Your task to perform on an android device: Find coffee shops on Maps Image 0: 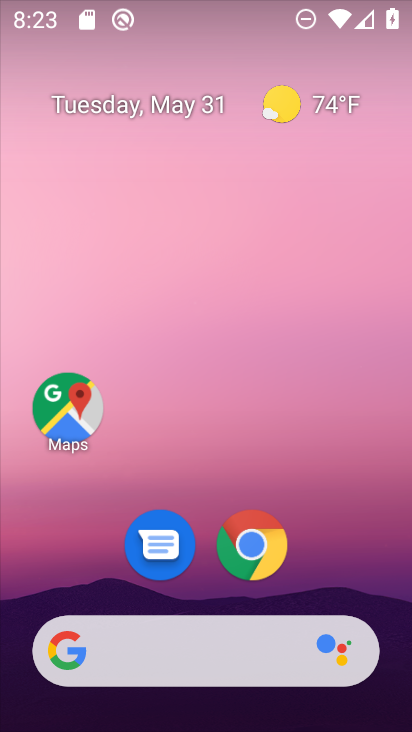
Step 0: drag from (321, 569) to (211, 0)
Your task to perform on an android device: Find coffee shops on Maps Image 1: 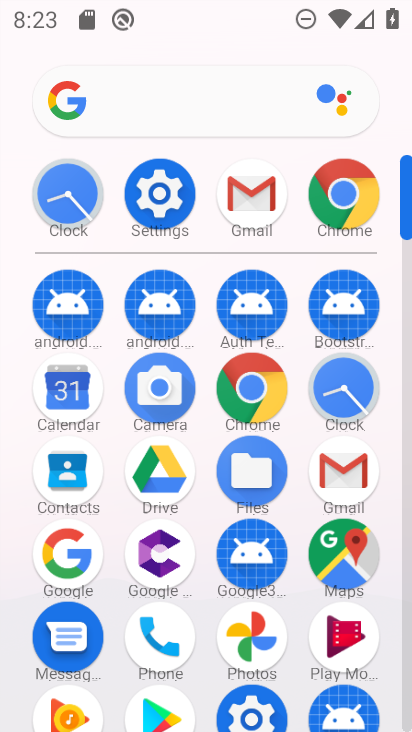
Step 1: drag from (7, 609) to (14, 295)
Your task to perform on an android device: Find coffee shops on Maps Image 2: 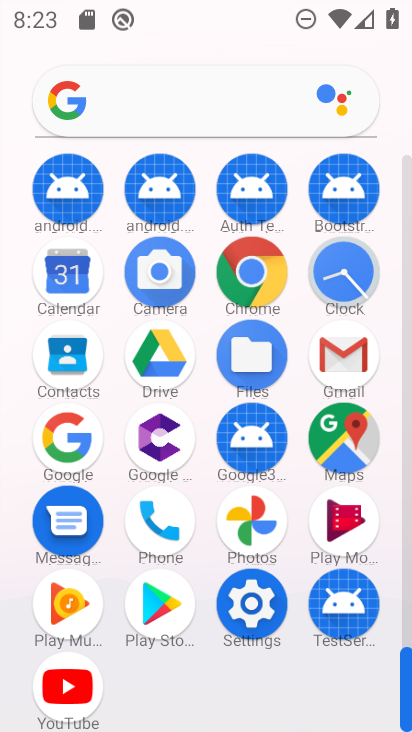
Step 2: click (336, 436)
Your task to perform on an android device: Find coffee shops on Maps Image 3: 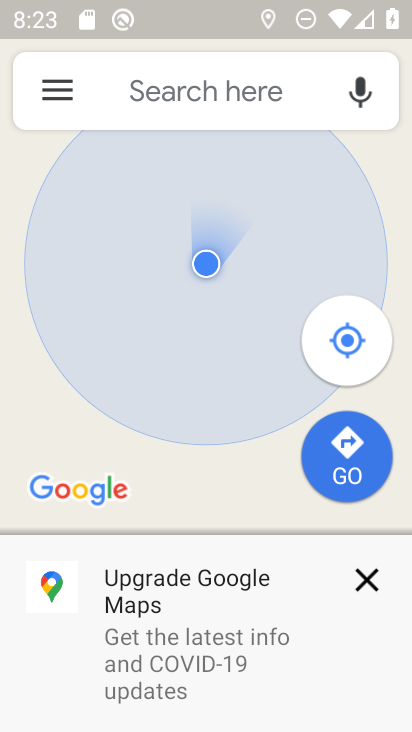
Step 3: click (295, 86)
Your task to perform on an android device: Find coffee shops on Maps Image 4: 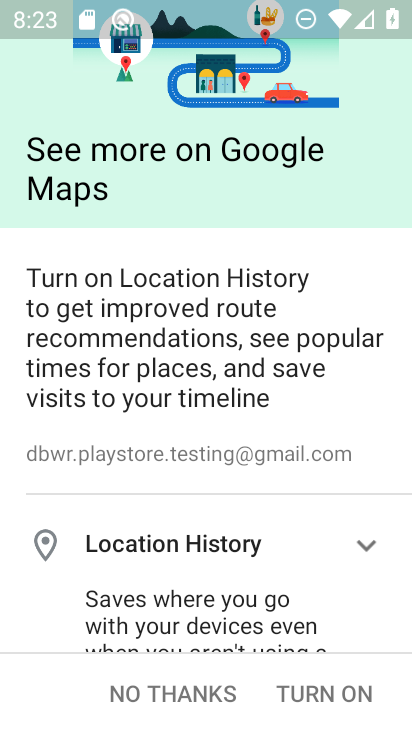
Step 4: click (334, 692)
Your task to perform on an android device: Find coffee shops on Maps Image 5: 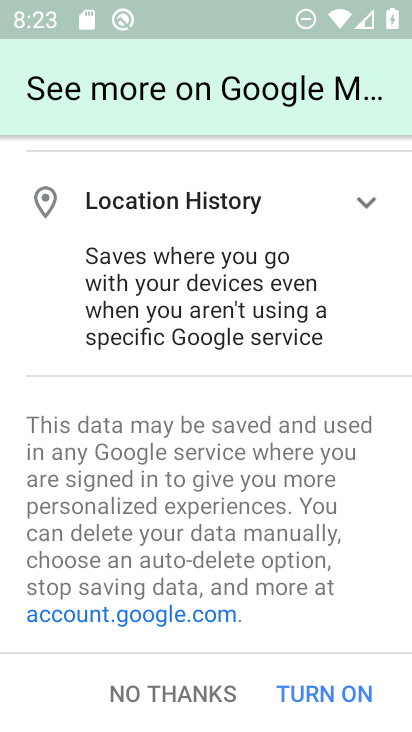
Step 5: click (334, 692)
Your task to perform on an android device: Find coffee shops on Maps Image 6: 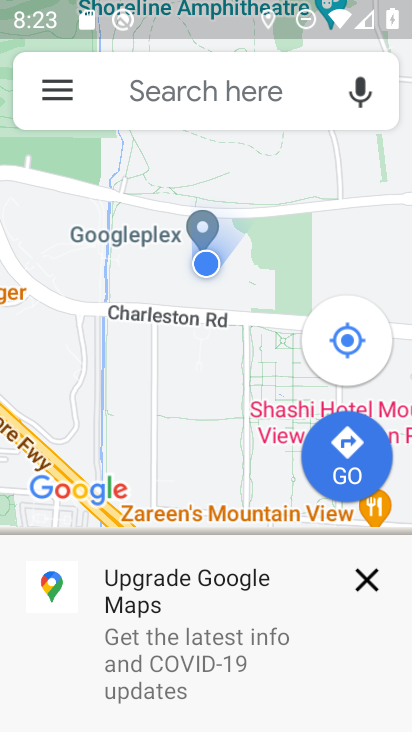
Step 6: click (122, 77)
Your task to perform on an android device: Find coffee shops on Maps Image 7: 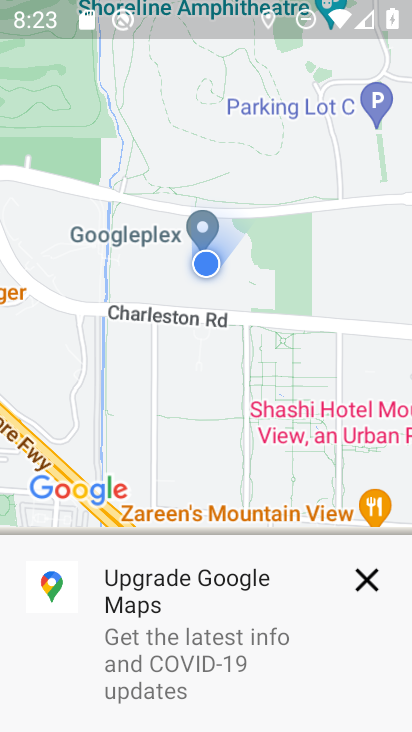
Step 7: click (221, 77)
Your task to perform on an android device: Find coffee shops on Maps Image 8: 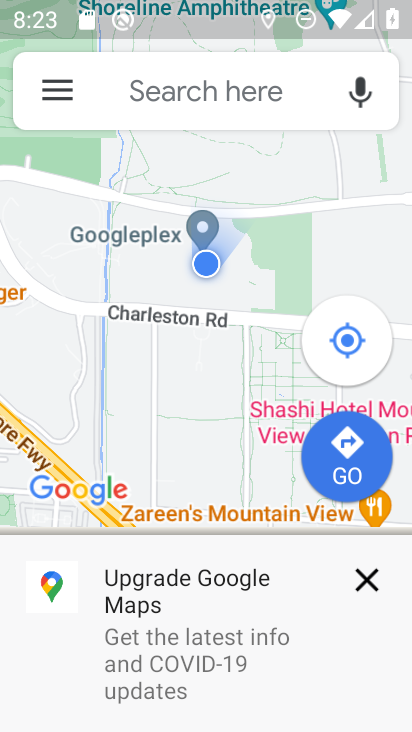
Step 8: click (107, 87)
Your task to perform on an android device: Find coffee shops on Maps Image 9: 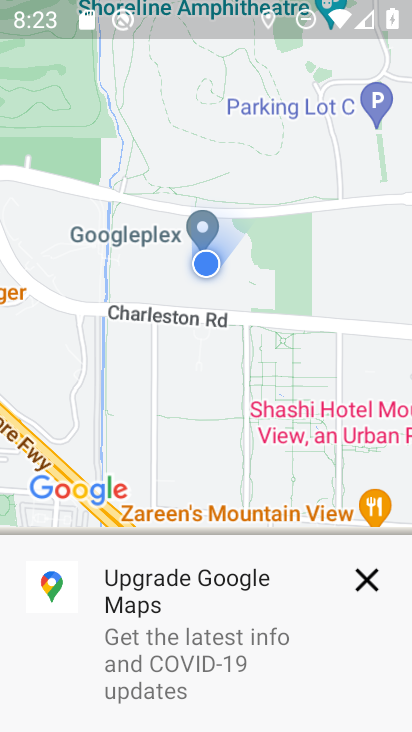
Step 9: click (229, 146)
Your task to perform on an android device: Find coffee shops on Maps Image 10: 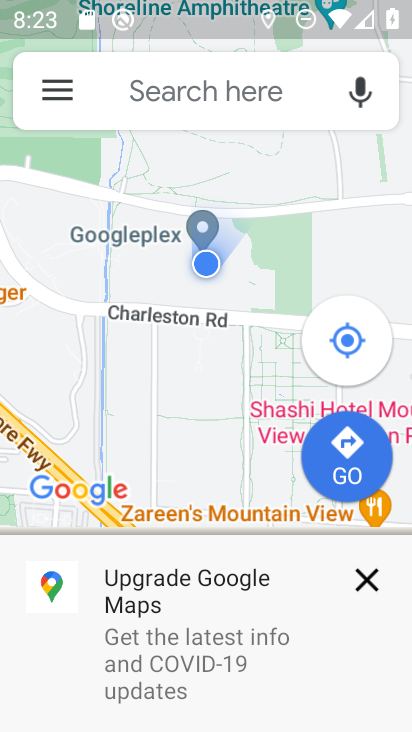
Step 10: click (291, 87)
Your task to perform on an android device: Find coffee shops on Maps Image 11: 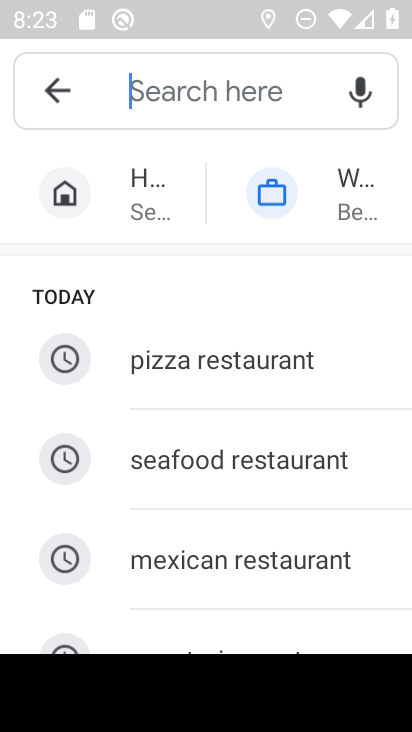
Step 11: type "coffee shops "
Your task to perform on an android device: Find coffee shops on Maps Image 12: 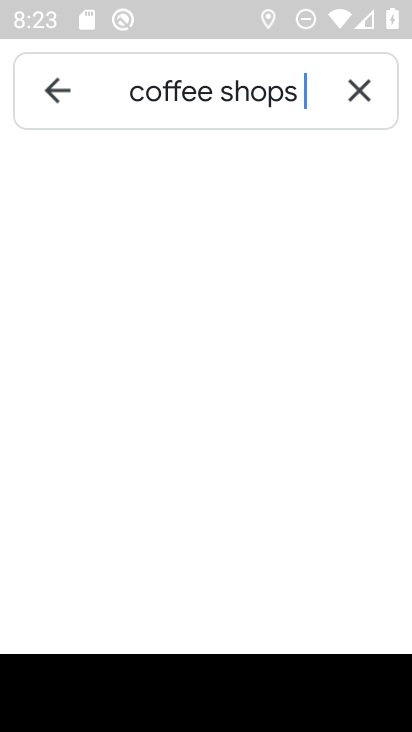
Step 12: type ""
Your task to perform on an android device: Find coffee shops on Maps Image 13: 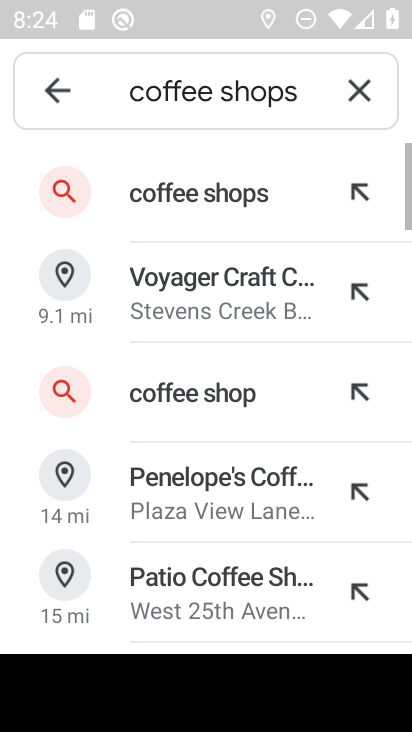
Step 13: click (184, 188)
Your task to perform on an android device: Find coffee shops on Maps Image 14: 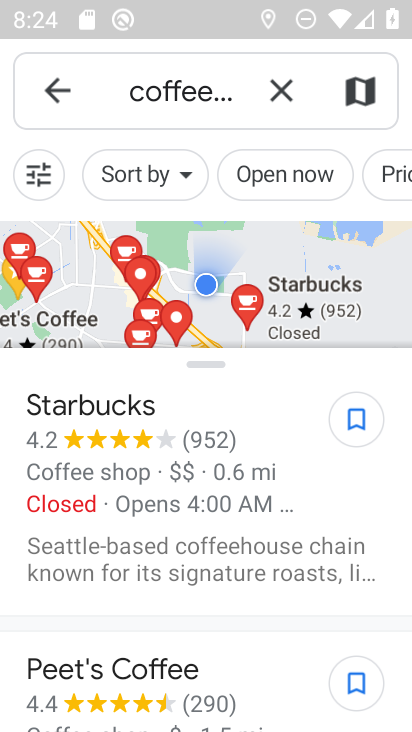
Step 14: task complete